Your task to perform on an android device: Search for a 4k TV on Best Buy Image 0: 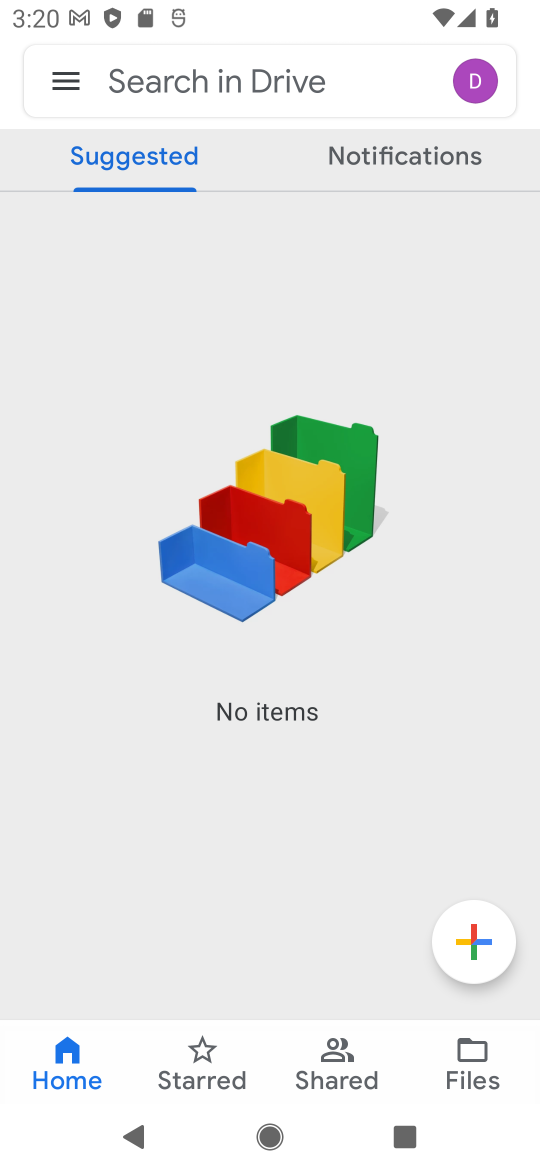
Step 0: press home button
Your task to perform on an android device: Search for a 4k TV on Best Buy Image 1: 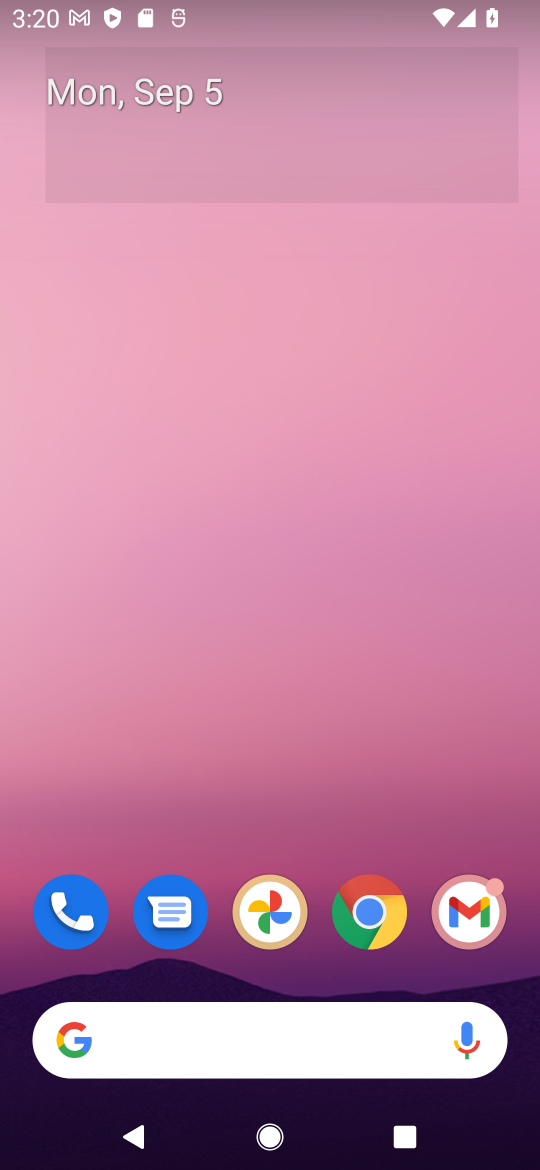
Step 1: click (395, 909)
Your task to perform on an android device: Search for a 4k TV on Best Buy Image 2: 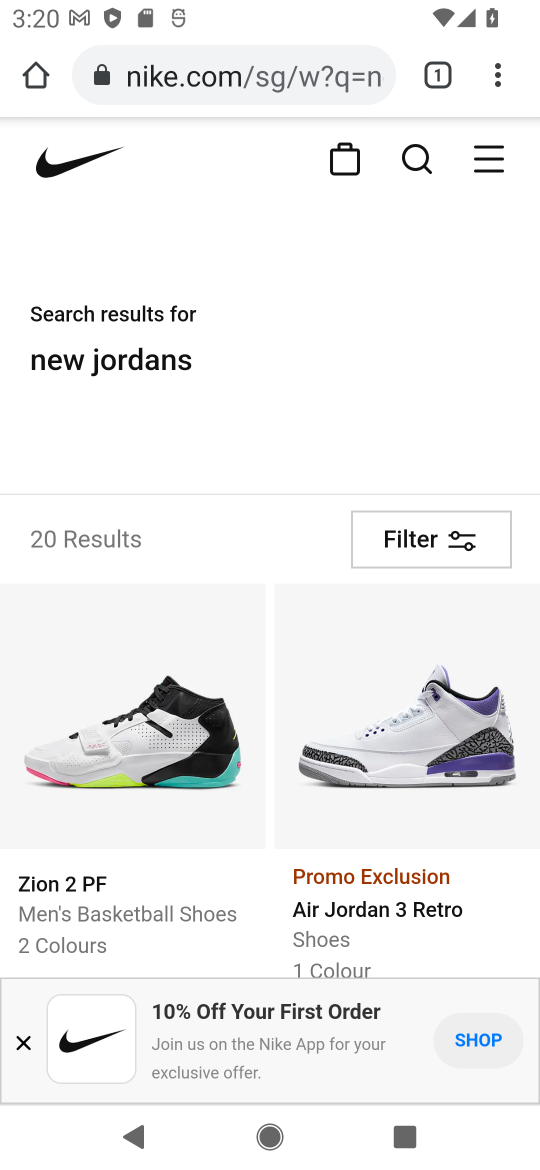
Step 2: click (230, 65)
Your task to perform on an android device: Search for a 4k TV on Best Buy Image 3: 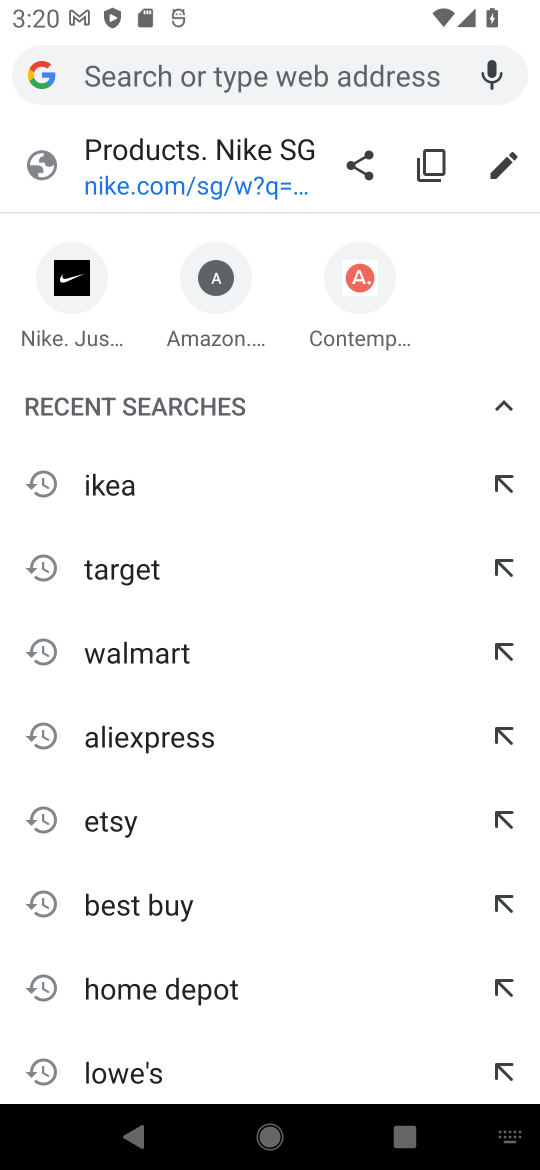
Step 3: type "besr"
Your task to perform on an android device: Search for a 4k TV on Best Buy Image 4: 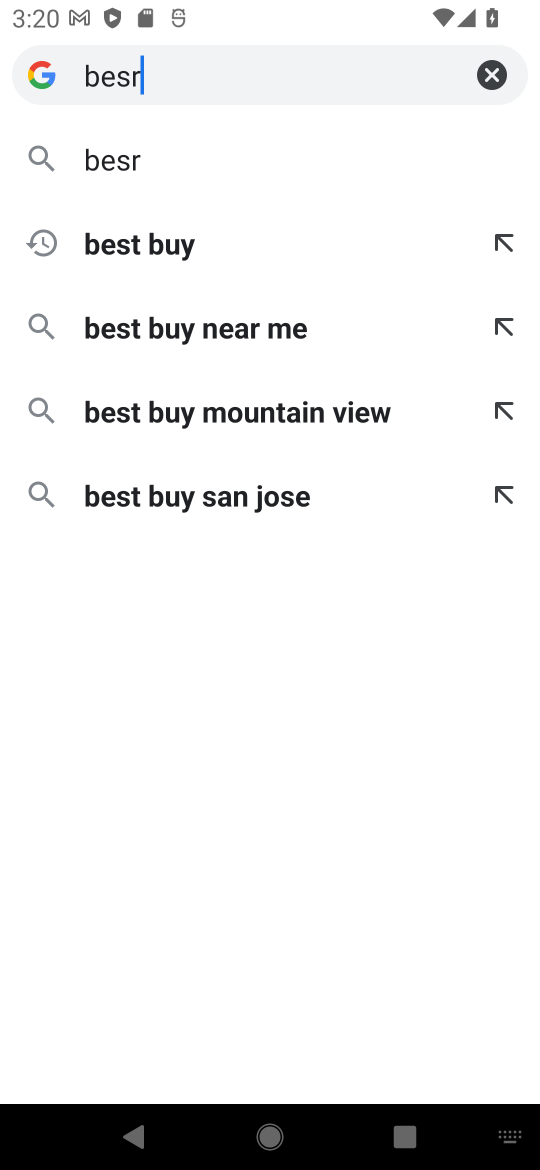
Step 4: type "best buy"
Your task to perform on an android device: Search for a 4k TV on Best Buy Image 5: 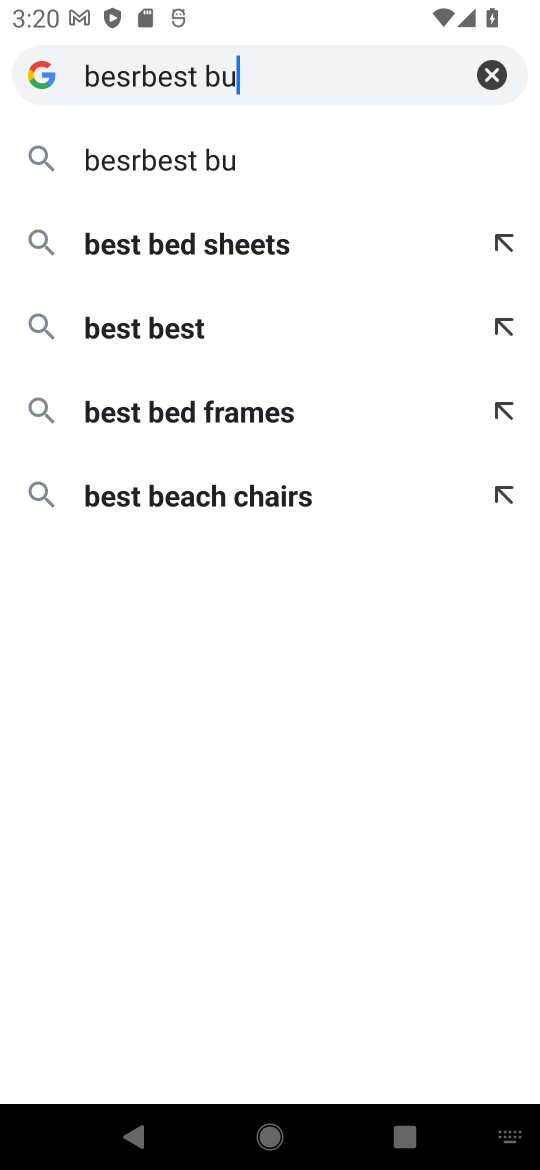
Step 5: press enter
Your task to perform on an android device: Search for a 4k TV on Best Buy Image 6: 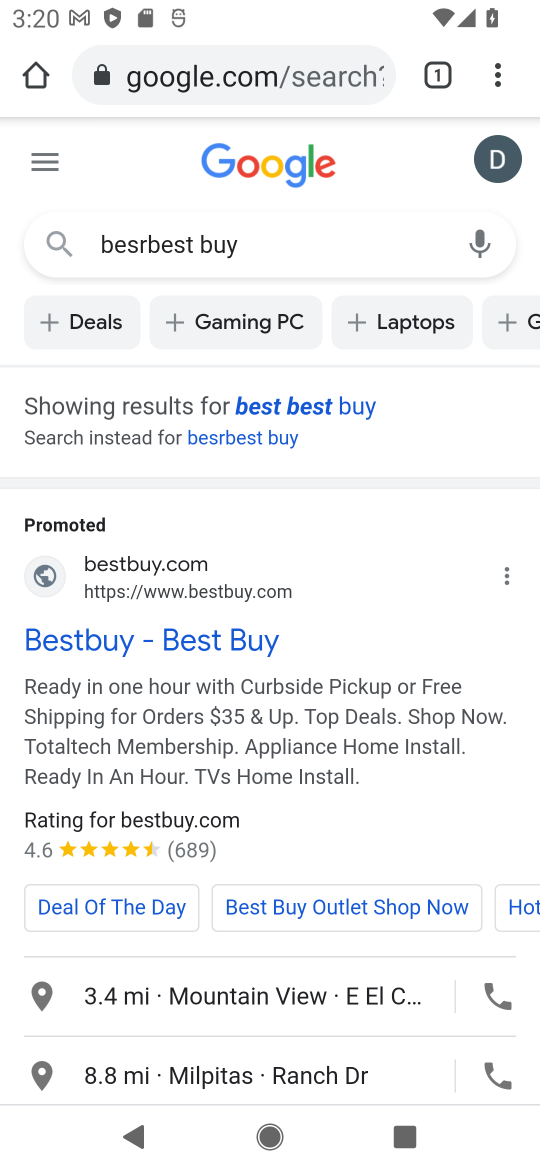
Step 6: click (273, 79)
Your task to perform on an android device: Search for a 4k TV on Best Buy Image 7: 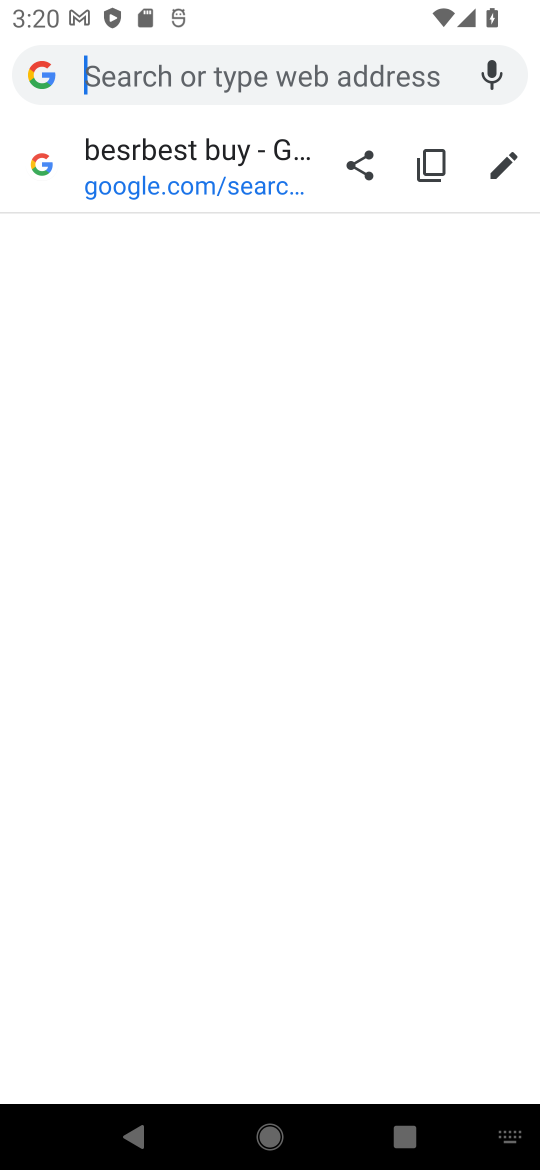
Step 7: type "best buy"
Your task to perform on an android device: Search for a 4k TV on Best Buy Image 8: 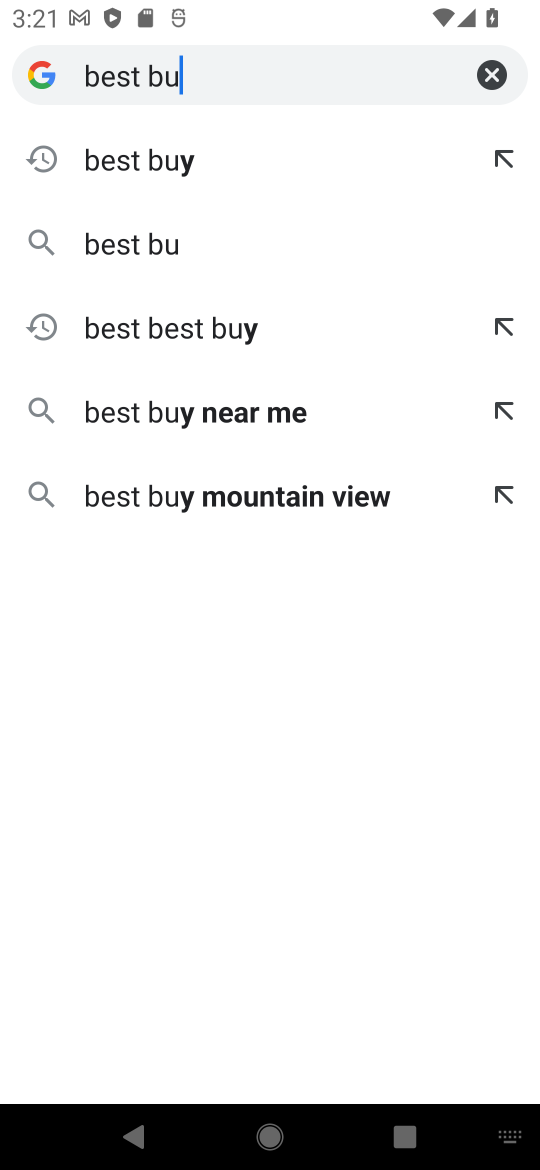
Step 8: type ""
Your task to perform on an android device: Search for a 4k TV on Best Buy Image 9: 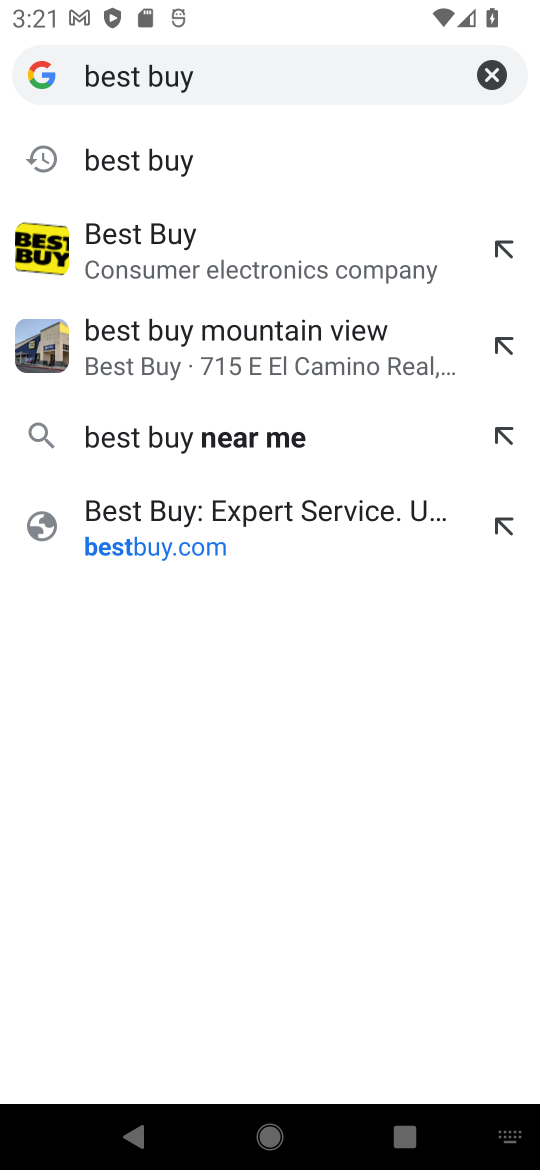
Step 9: click (320, 49)
Your task to perform on an android device: Search for a 4k TV on Best Buy Image 10: 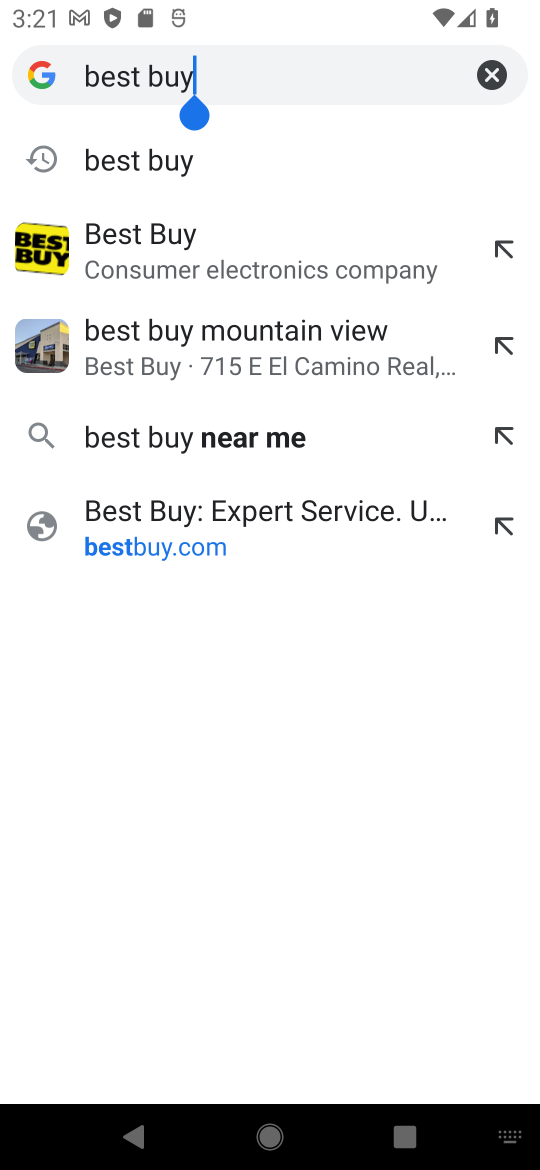
Step 10: press enter
Your task to perform on an android device: Search for a 4k TV on Best Buy Image 11: 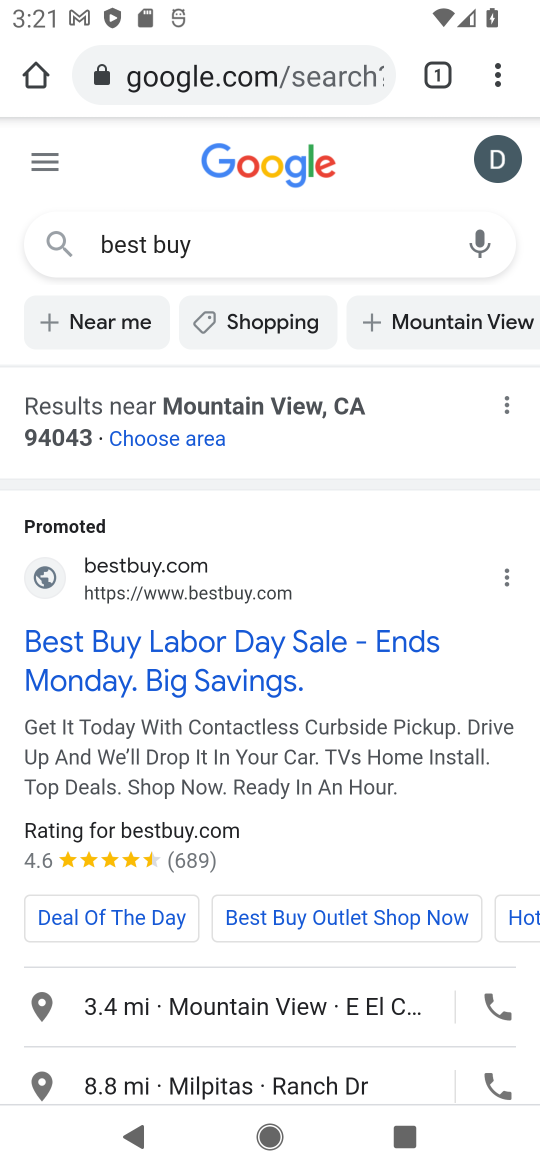
Step 11: click (193, 674)
Your task to perform on an android device: Search for a 4k TV on Best Buy Image 12: 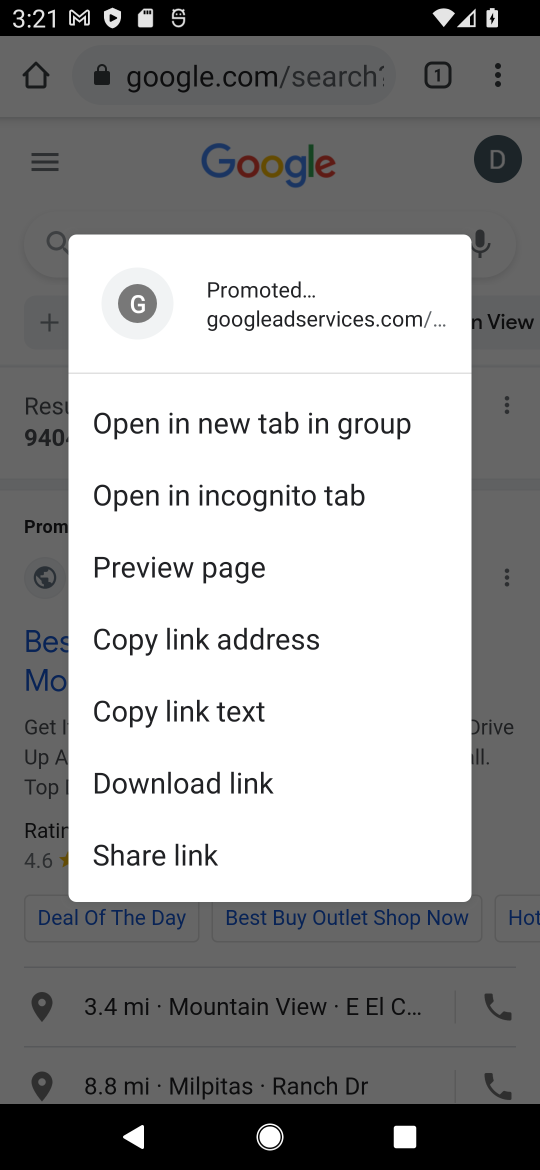
Step 12: click (481, 622)
Your task to perform on an android device: Search for a 4k TV on Best Buy Image 13: 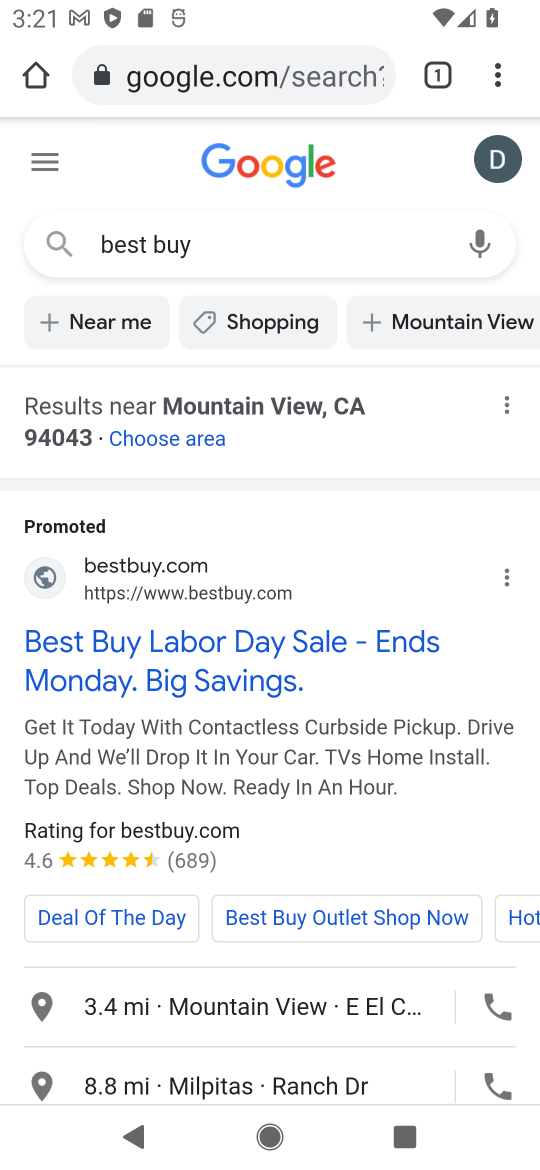
Step 13: click (225, 659)
Your task to perform on an android device: Search for a 4k TV on Best Buy Image 14: 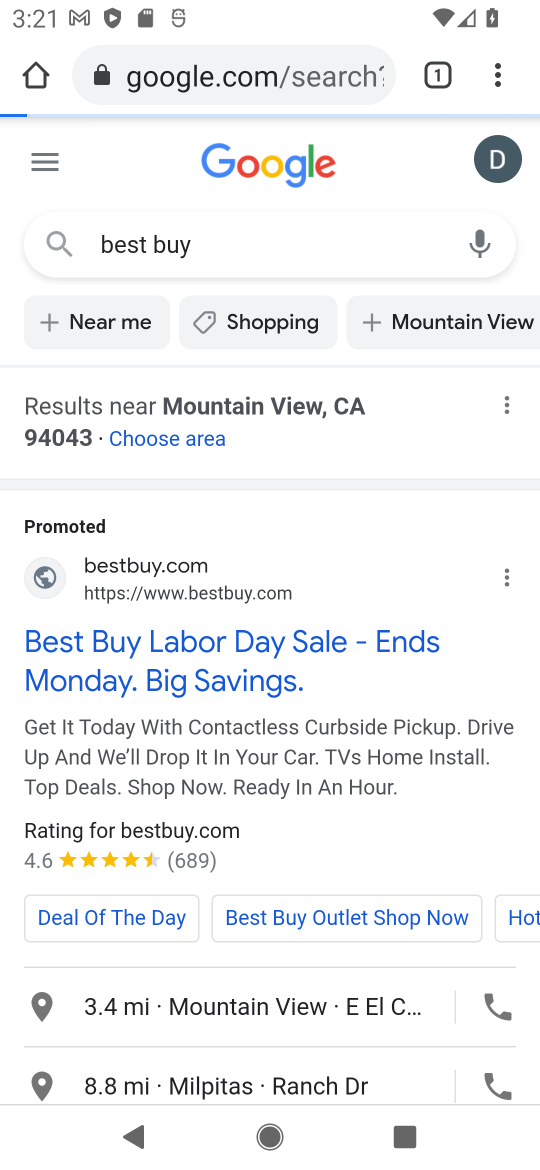
Step 14: drag from (334, 837) to (369, 686)
Your task to perform on an android device: Search for a 4k TV on Best Buy Image 15: 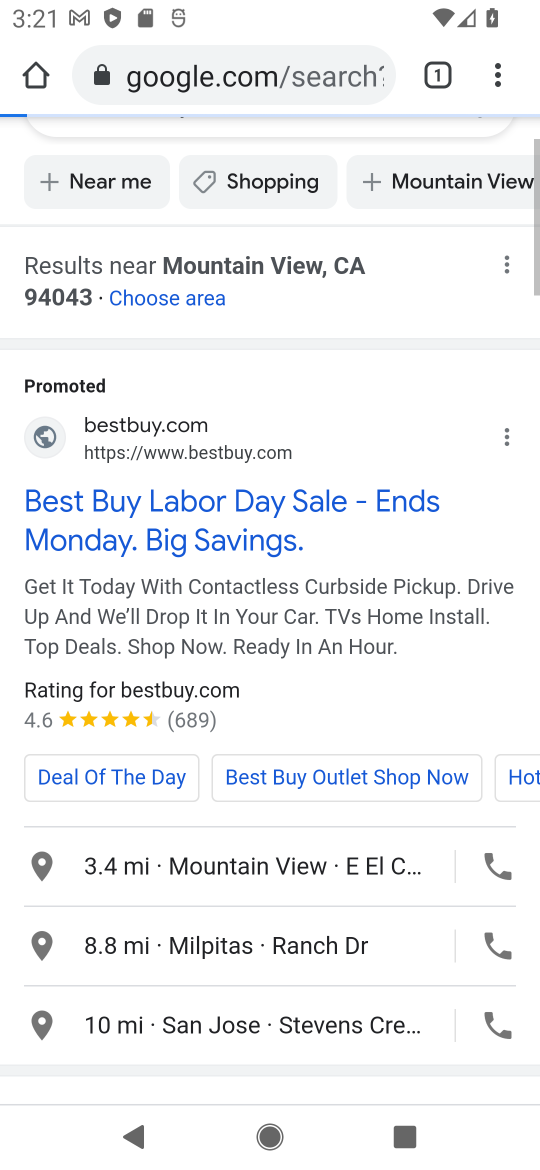
Step 15: drag from (392, 928) to (377, 404)
Your task to perform on an android device: Search for a 4k TV on Best Buy Image 16: 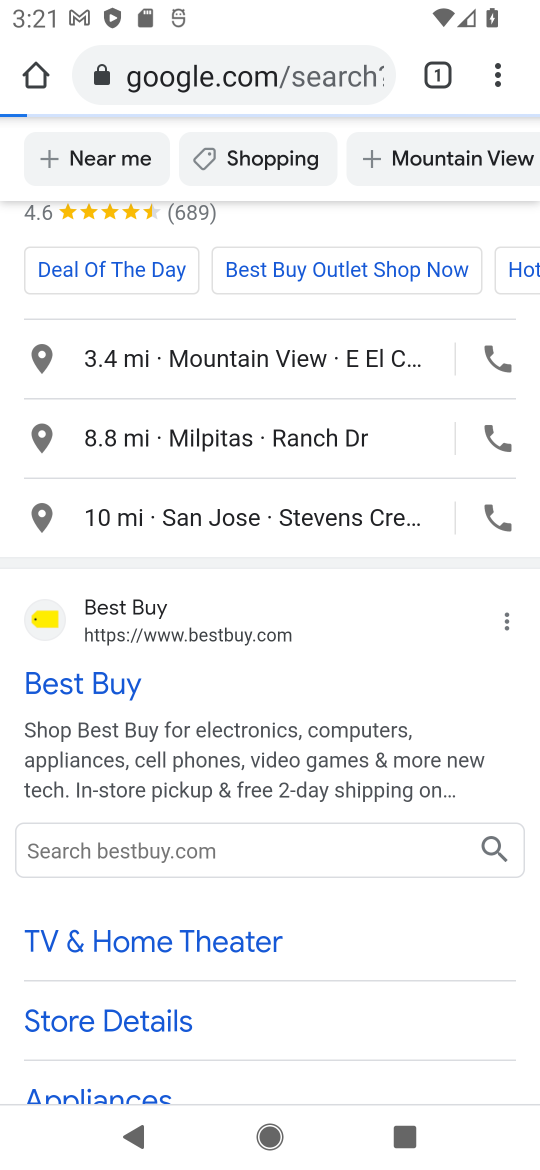
Step 16: click (68, 693)
Your task to perform on an android device: Search for a 4k TV on Best Buy Image 17: 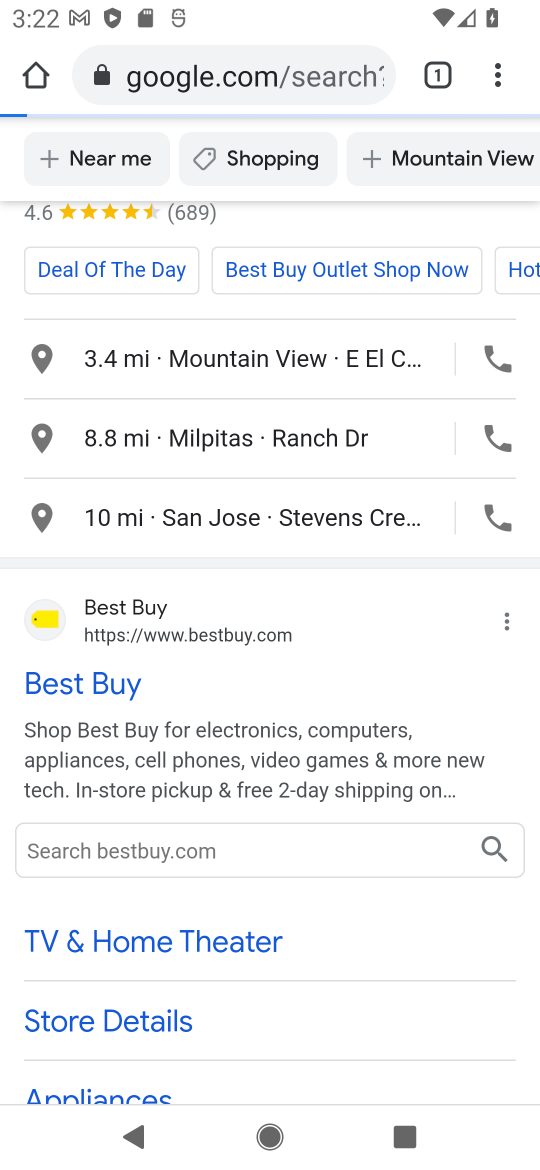
Step 17: click (96, 682)
Your task to perform on an android device: Search for a 4k TV on Best Buy Image 18: 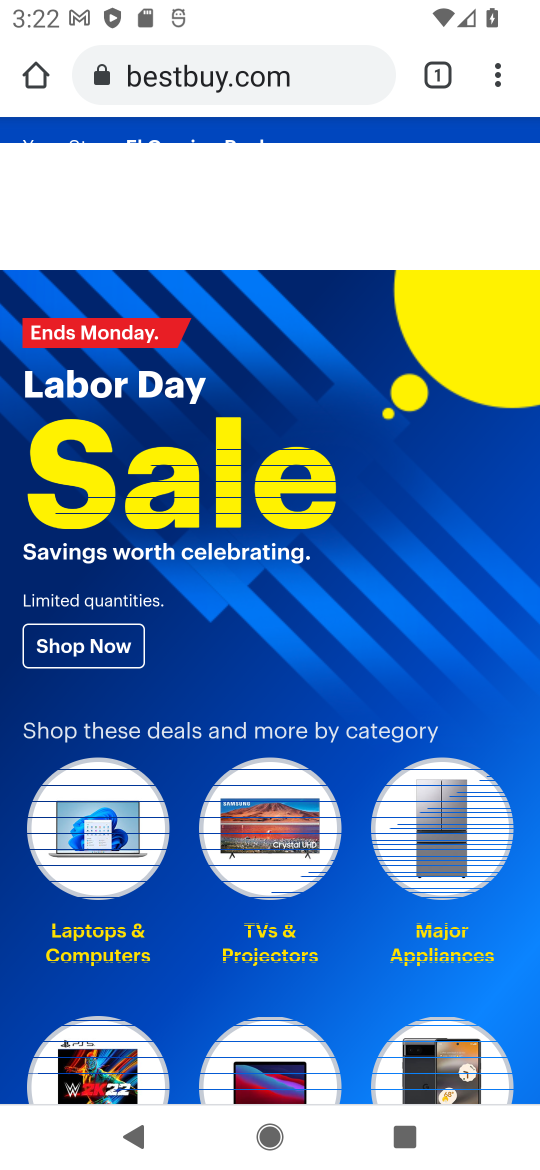
Step 18: click (334, 224)
Your task to perform on an android device: Search for a 4k TV on Best Buy Image 19: 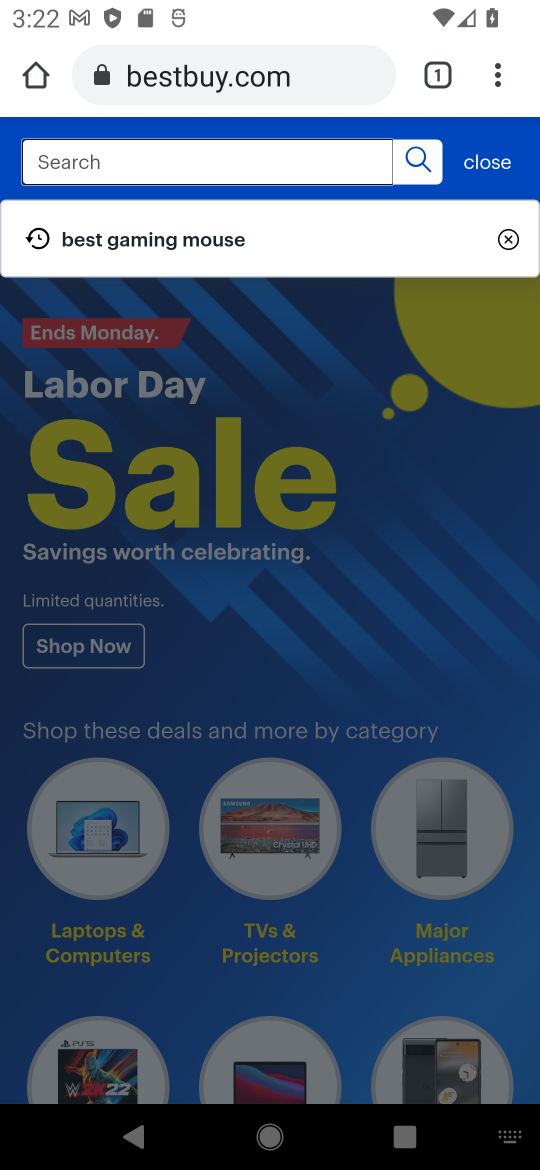
Step 19: type "4k tv"
Your task to perform on an android device: Search for a 4k TV on Best Buy Image 20: 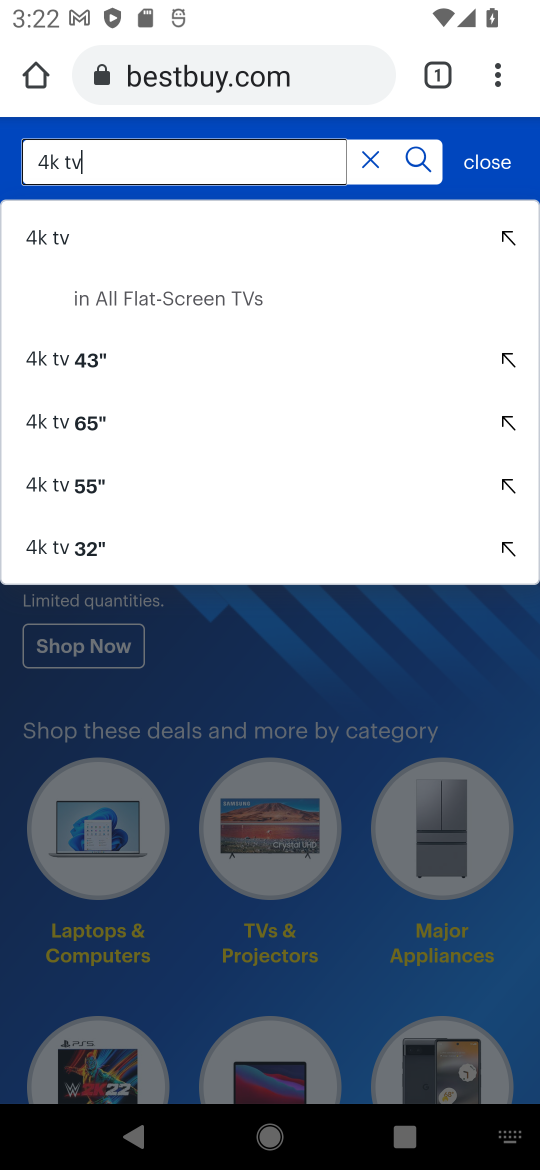
Step 20: press enter
Your task to perform on an android device: Search for a 4k TV on Best Buy Image 21: 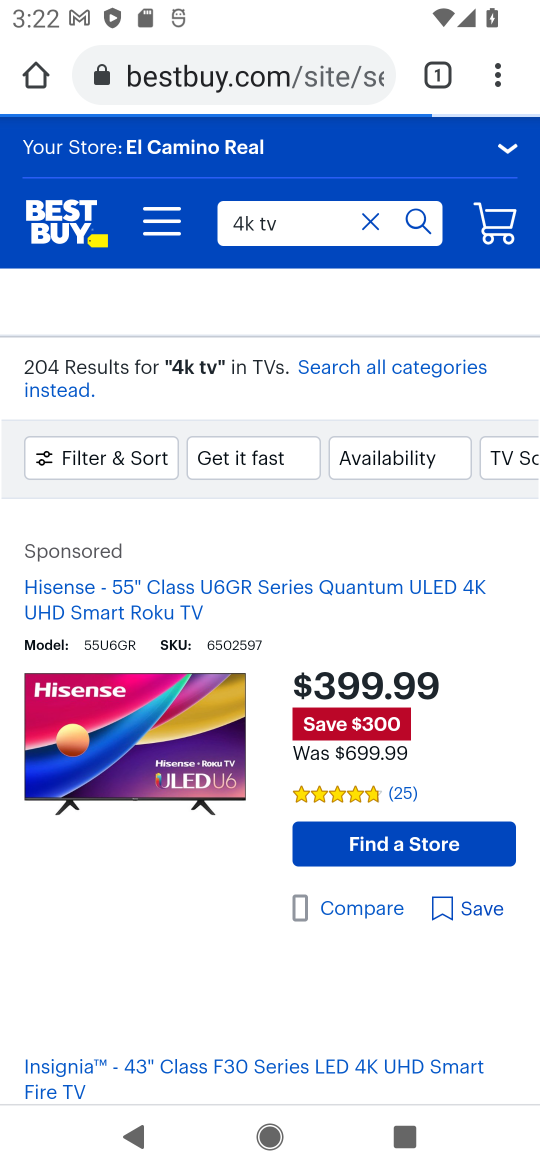
Step 21: click (426, 748)
Your task to perform on an android device: Search for a 4k TV on Best Buy Image 22: 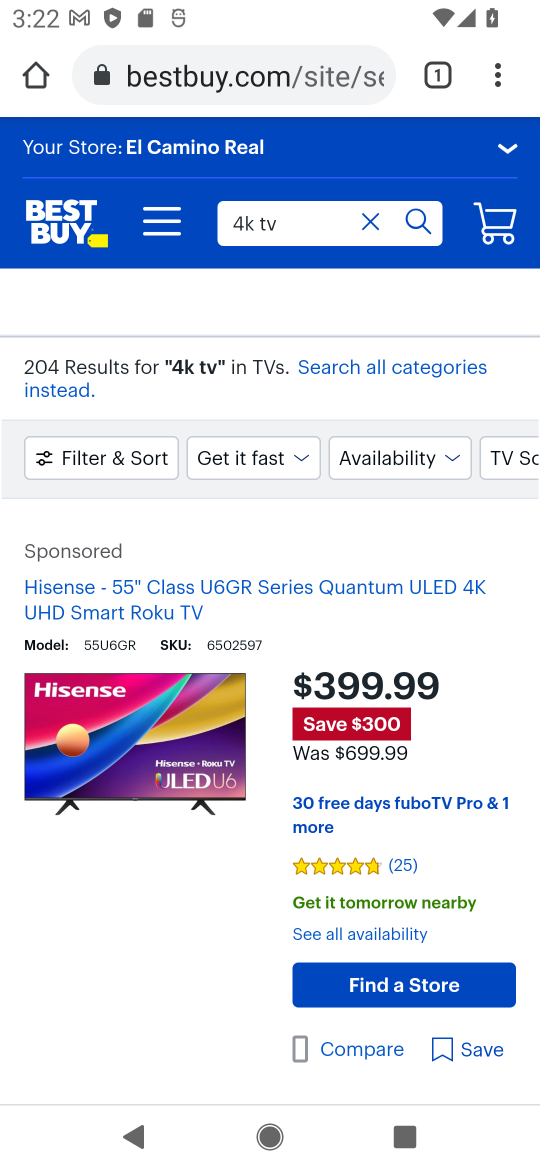
Step 22: click (377, 635)
Your task to perform on an android device: Search for a 4k TV on Best Buy Image 23: 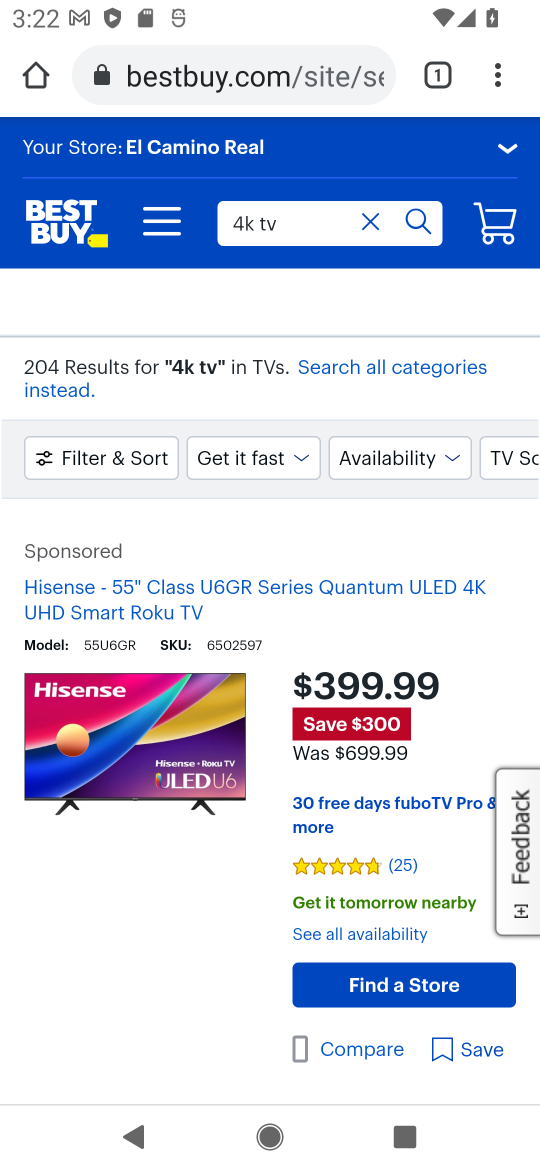
Step 23: task complete